Your task to perform on an android device: Open notification settings Image 0: 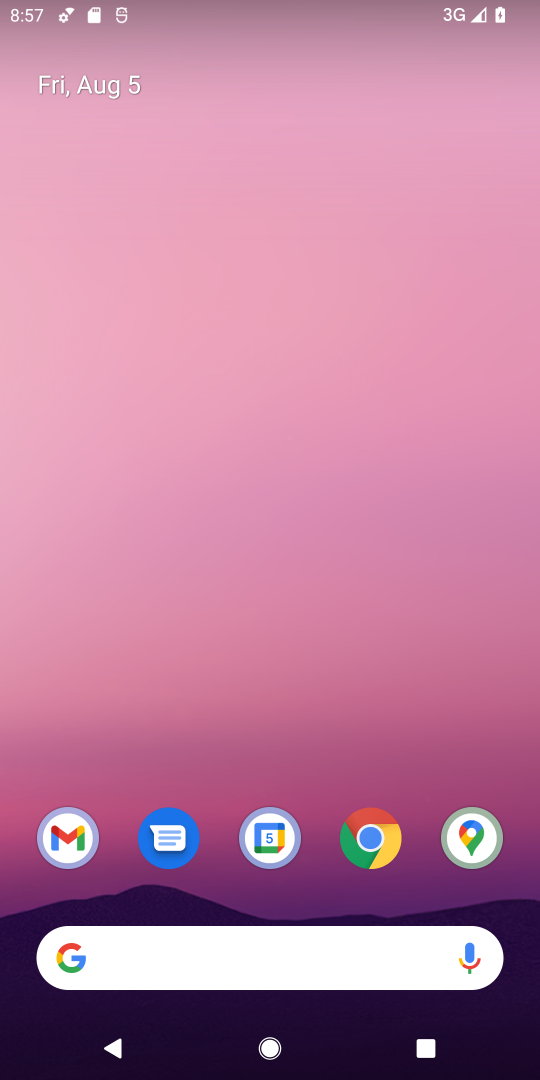
Step 0: drag from (182, 718) to (149, 245)
Your task to perform on an android device: Open notification settings Image 1: 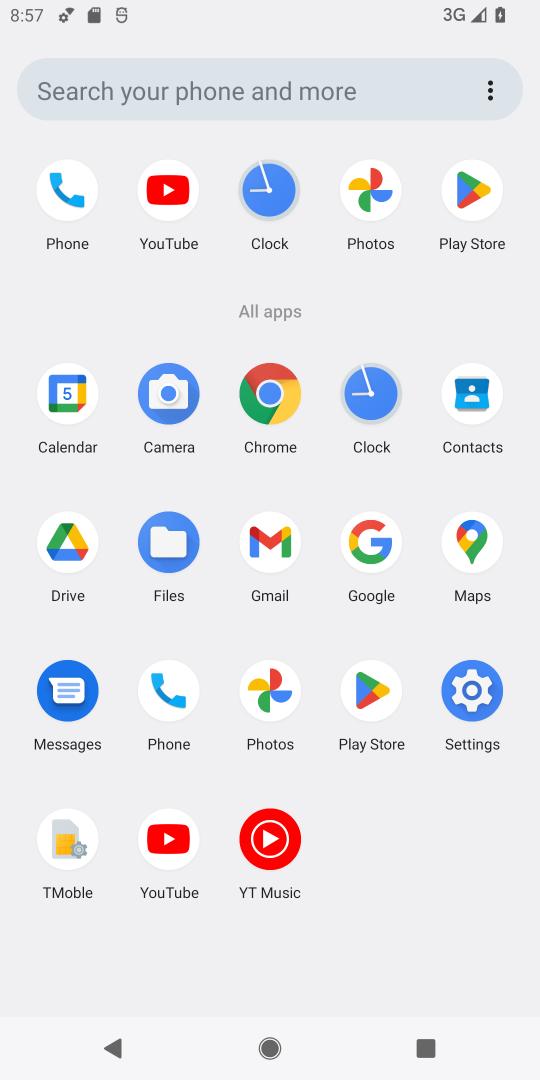
Step 1: click (453, 681)
Your task to perform on an android device: Open notification settings Image 2: 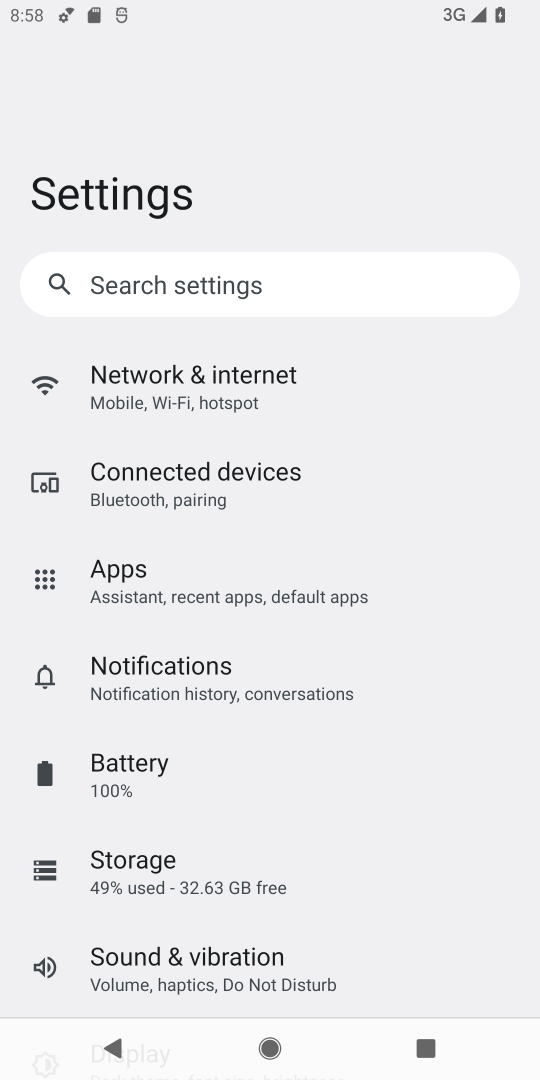
Step 2: click (228, 673)
Your task to perform on an android device: Open notification settings Image 3: 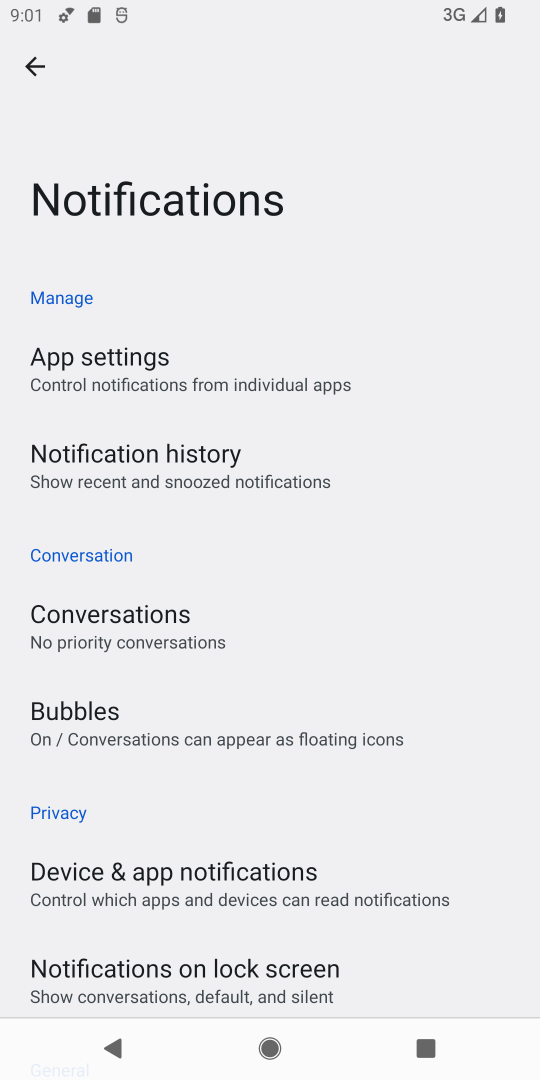
Step 3: task complete